Your task to perform on an android device: Open my contact list Image 0: 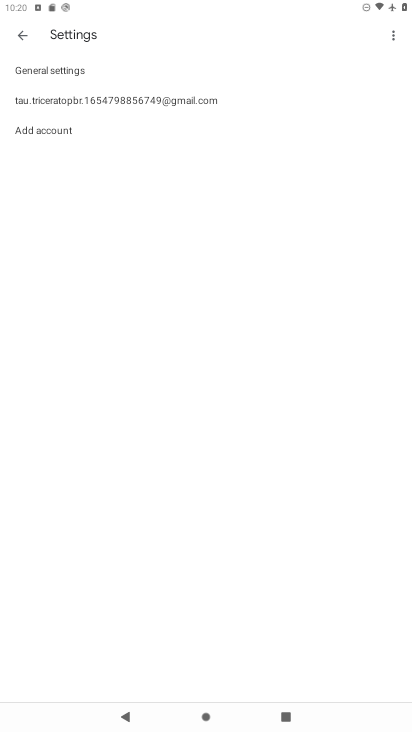
Step 0: press home button
Your task to perform on an android device: Open my contact list Image 1: 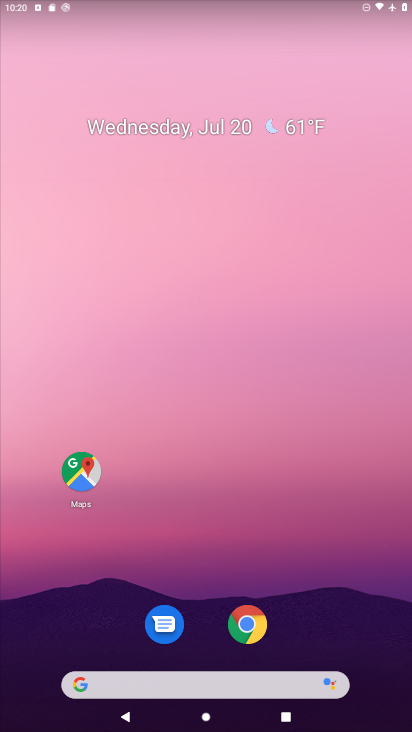
Step 1: drag from (218, 593) to (289, 83)
Your task to perform on an android device: Open my contact list Image 2: 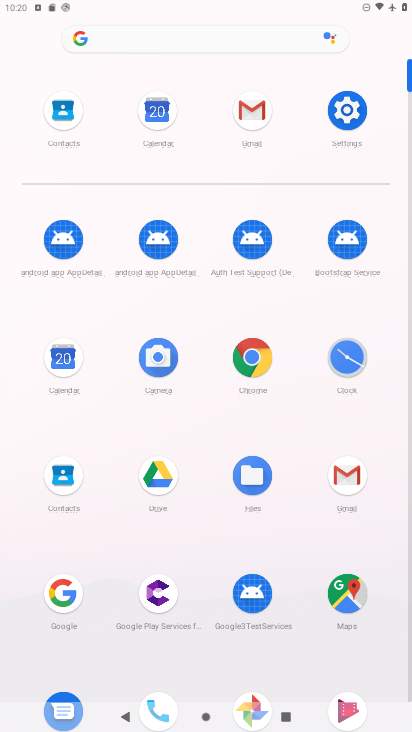
Step 2: click (84, 113)
Your task to perform on an android device: Open my contact list Image 3: 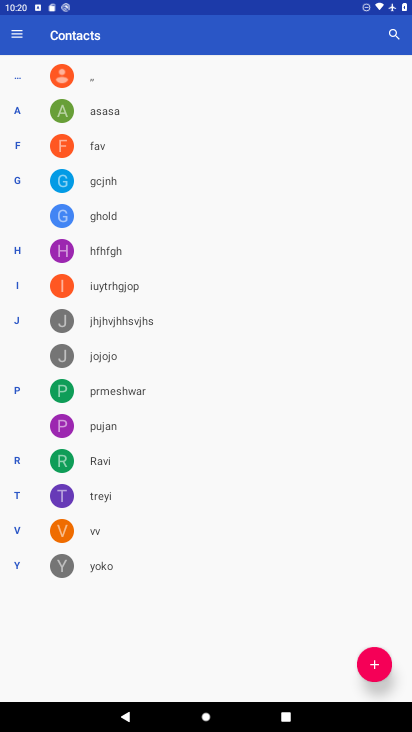
Step 3: task complete